Your task to perform on an android device: add a contact in the contacts app Image 0: 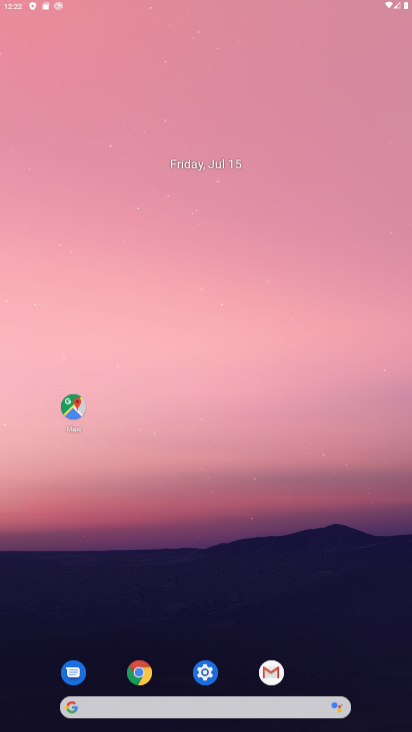
Step 0: press home button
Your task to perform on an android device: add a contact in the contacts app Image 1: 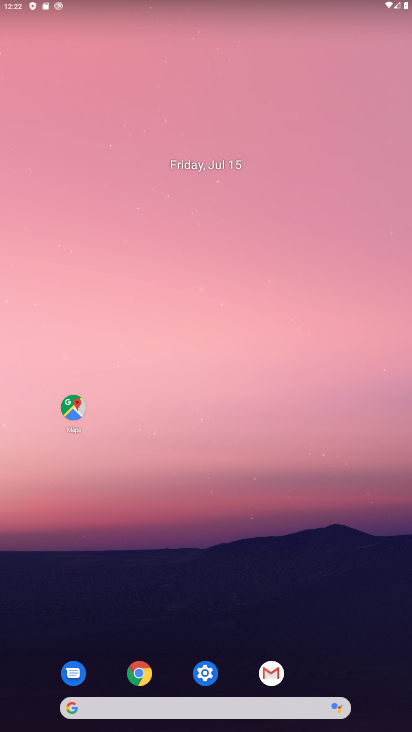
Step 1: drag from (221, 700) to (254, 108)
Your task to perform on an android device: add a contact in the contacts app Image 2: 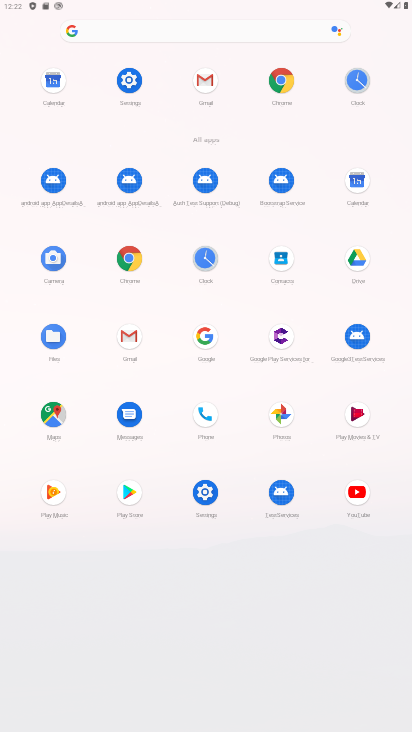
Step 2: click (196, 418)
Your task to perform on an android device: add a contact in the contacts app Image 3: 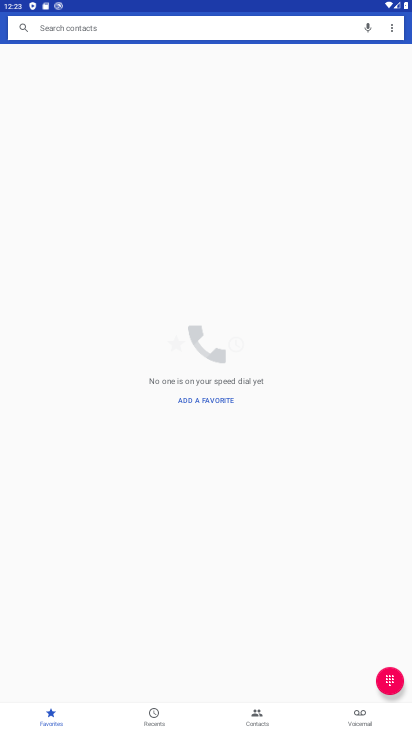
Step 3: click (260, 718)
Your task to perform on an android device: add a contact in the contacts app Image 4: 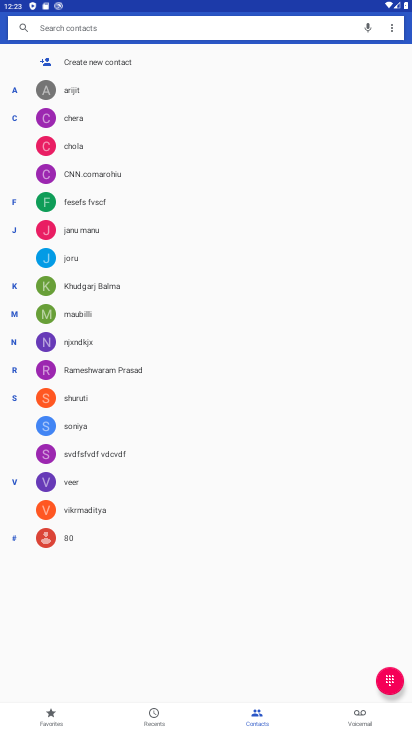
Step 4: click (112, 62)
Your task to perform on an android device: add a contact in the contacts app Image 5: 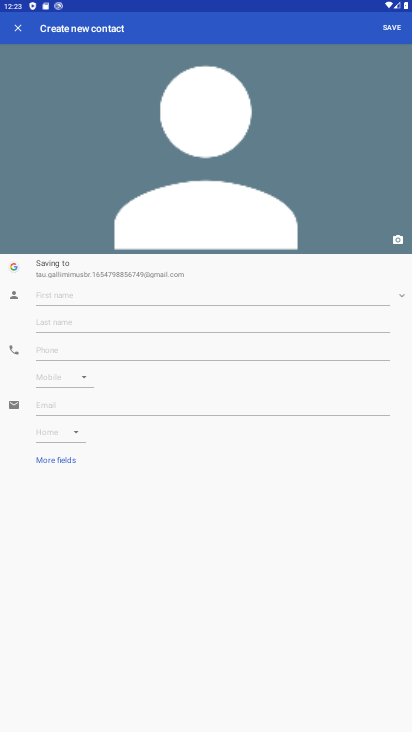
Step 5: click (111, 298)
Your task to perform on an android device: add a contact in the contacts app Image 6: 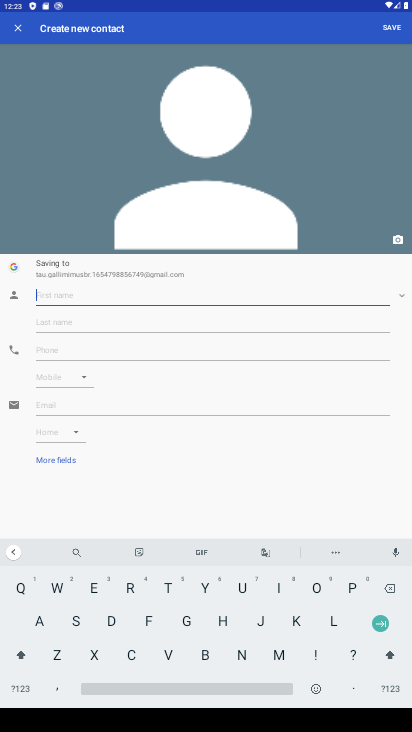
Step 6: click (196, 588)
Your task to perform on an android device: add a contact in the contacts app Image 7: 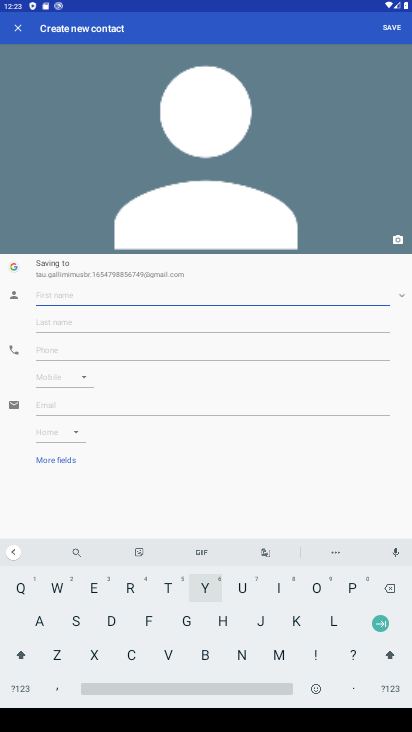
Step 7: drag from (157, 622) to (114, 638)
Your task to perform on an android device: add a contact in the contacts app Image 8: 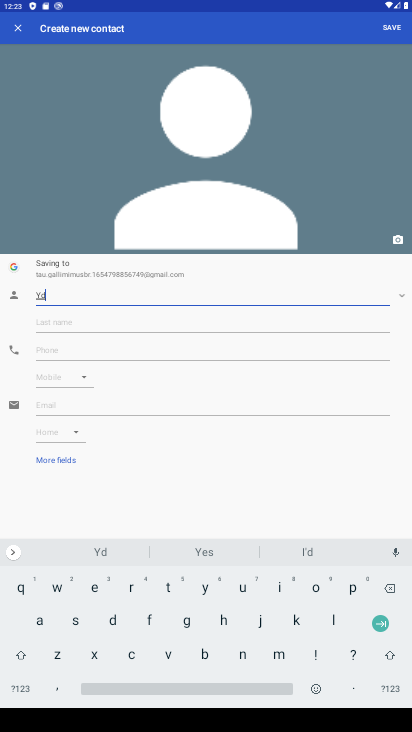
Step 8: click (230, 627)
Your task to perform on an android device: add a contact in the contacts app Image 9: 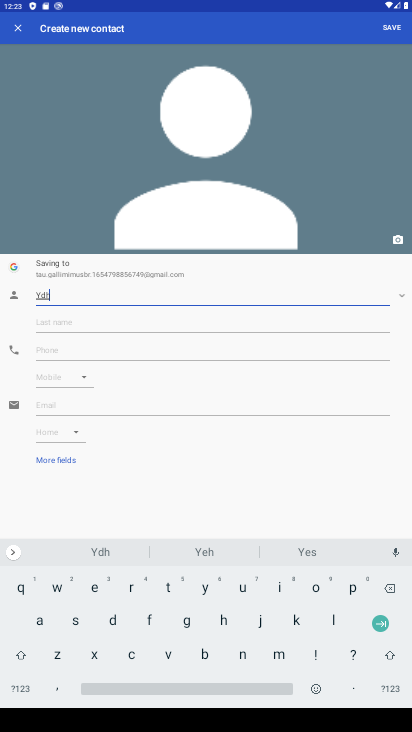
Step 9: click (63, 343)
Your task to perform on an android device: add a contact in the contacts app Image 10: 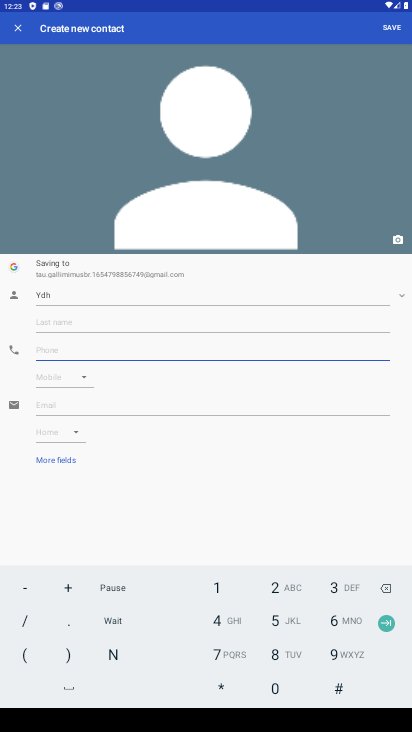
Step 10: click (165, 633)
Your task to perform on an android device: add a contact in the contacts app Image 11: 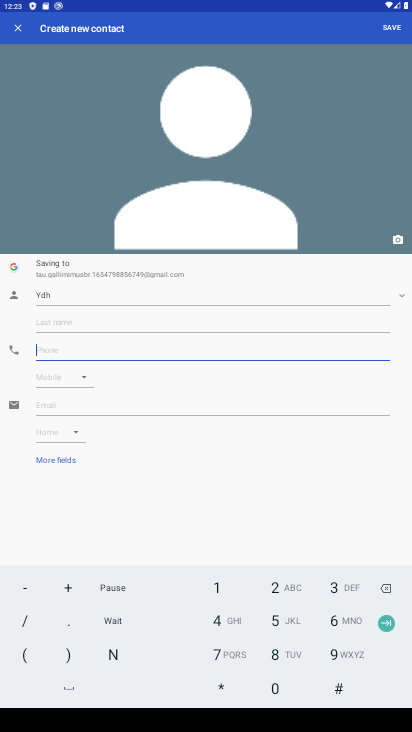
Step 11: click (193, 625)
Your task to perform on an android device: add a contact in the contacts app Image 12: 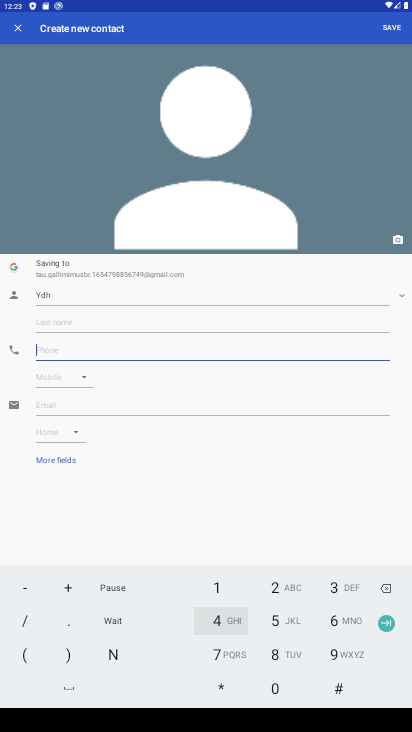
Step 12: click (271, 620)
Your task to perform on an android device: add a contact in the contacts app Image 13: 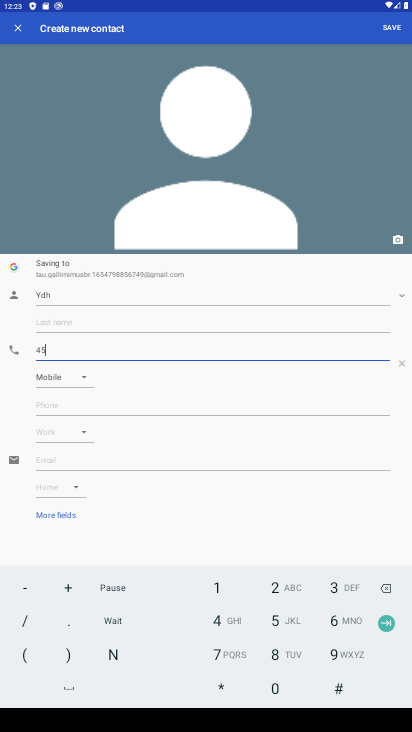
Step 13: click (286, 628)
Your task to perform on an android device: add a contact in the contacts app Image 14: 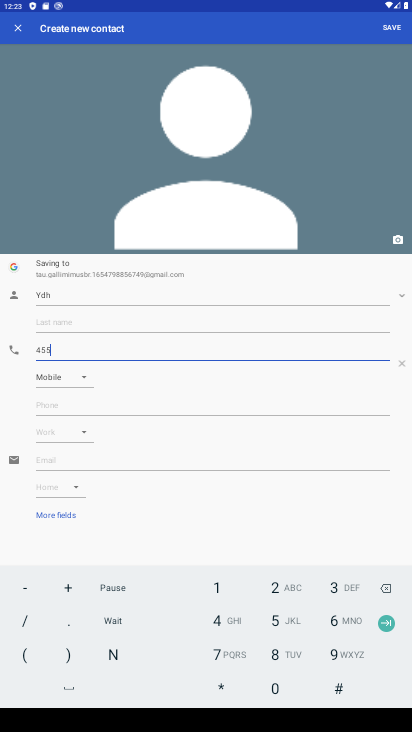
Step 14: click (267, 640)
Your task to perform on an android device: add a contact in the contacts app Image 15: 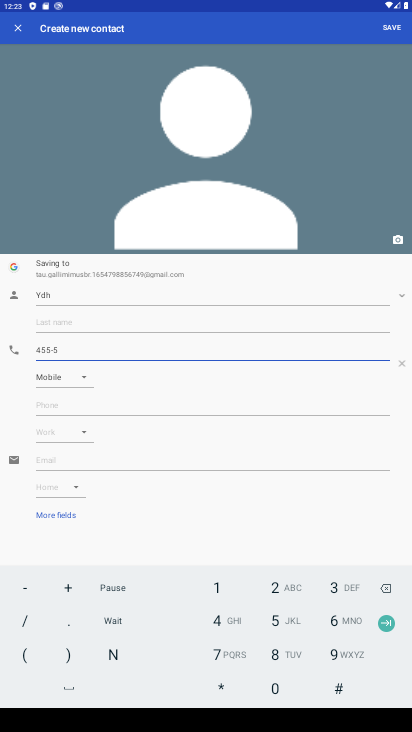
Step 15: click (383, 32)
Your task to perform on an android device: add a contact in the contacts app Image 16: 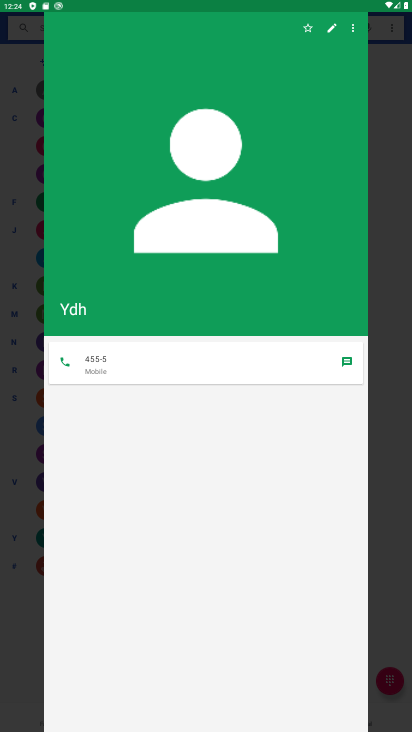
Step 16: task complete